Your task to perform on an android device: turn off wifi Image 0: 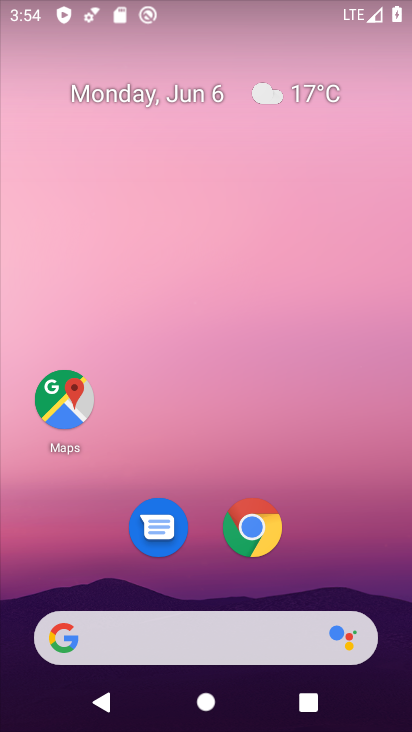
Step 0: drag from (329, 504) to (349, 296)
Your task to perform on an android device: turn off wifi Image 1: 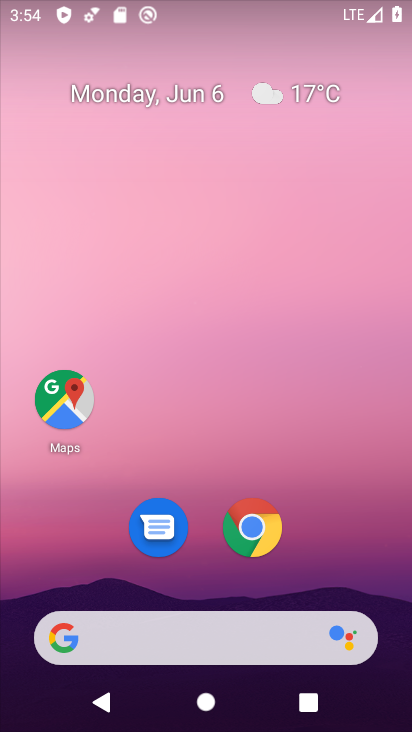
Step 1: drag from (376, 503) to (397, 32)
Your task to perform on an android device: turn off wifi Image 2: 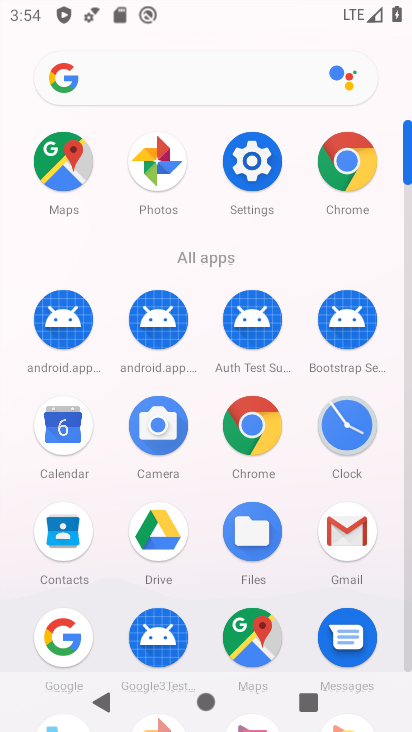
Step 2: click (258, 159)
Your task to perform on an android device: turn off wifi Image 3: 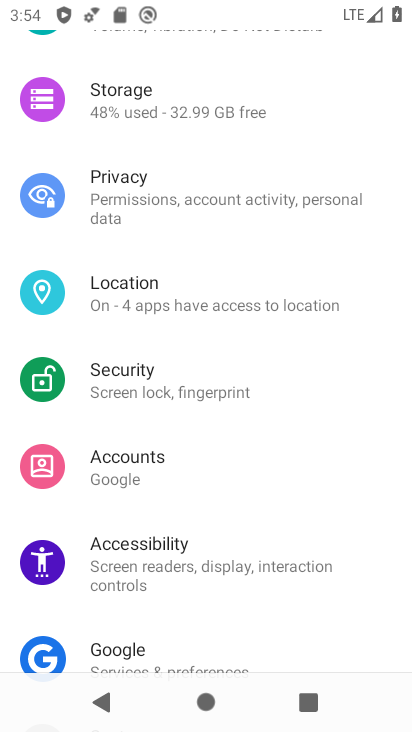
Step 3: drag from (353, 67) to (280, 405)
Your task to perform on an android device: turn off wifi Image 4: 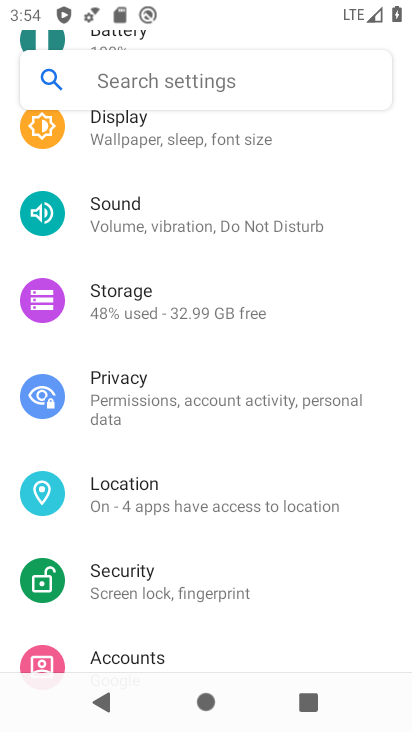
Step 4: drag from (383, 133) to (314, 640)
Your task to perform on an android device: turn off wifi Image 5: 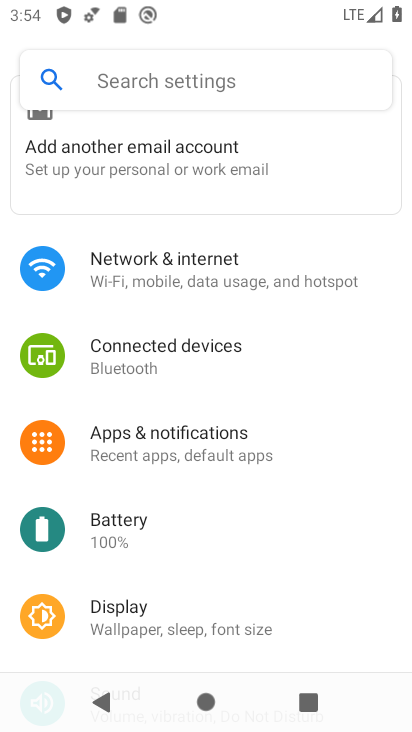
Step 5: click (275, 278)
Your task to perform on an android device: turn off wifi Image 6: 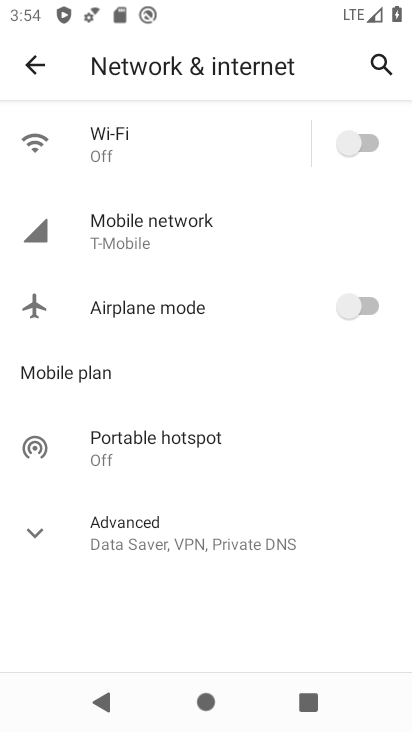
Step 6: task complete